Your task to perform on an android device: find snoozed emails in the gmail app Image 0: 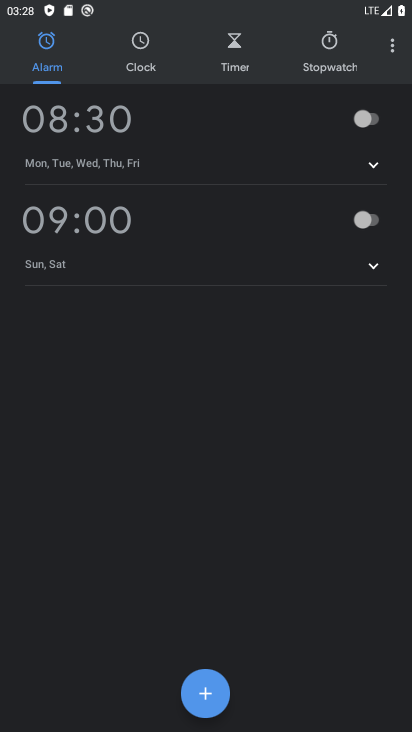
Step 0: press home button
Your task to perform on an android device: find snoozed emails in the gmail app Image 1: 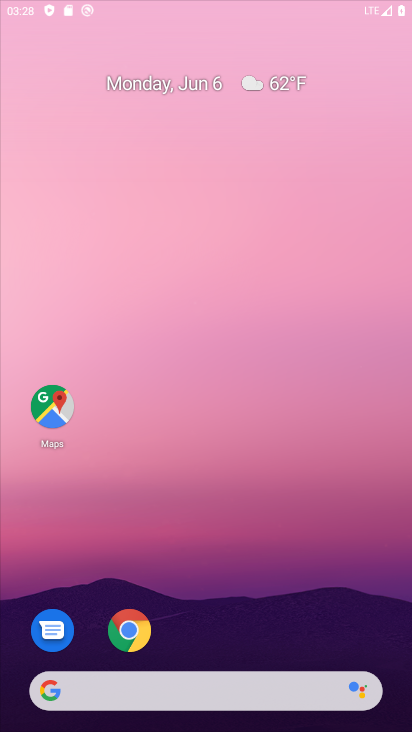
Step 1: drag from (294, 617) to (213, 6)
Your task to perform on an android device: find snoozed emails in the gmail app Image 2: 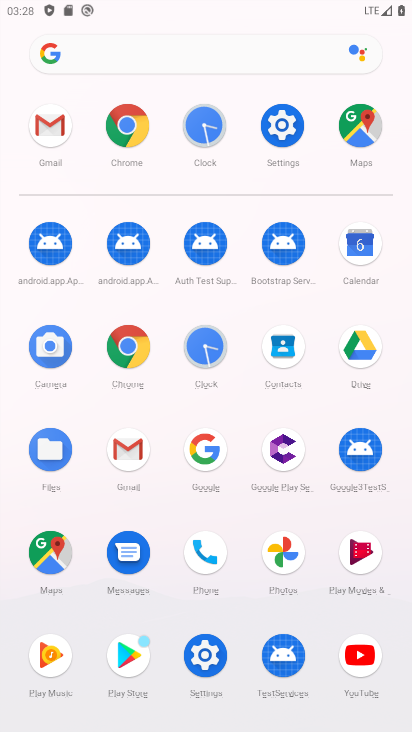
Step 2: click (42, 133)
Your task to perform on an android device: find snoozed emails in the gmail app Image 3: 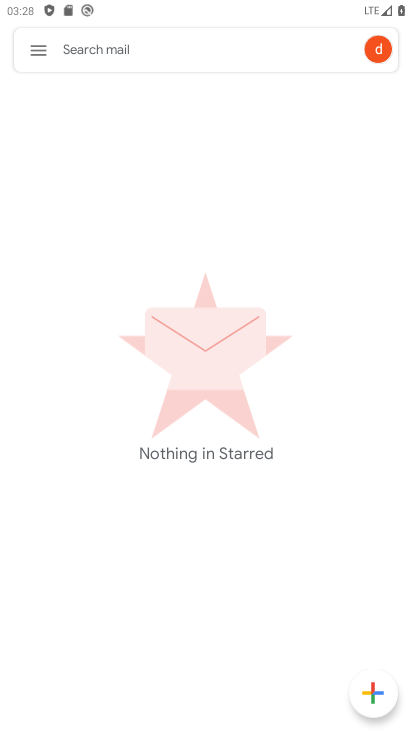
Step 3: click (45, 52)
Your task to perform on an android device: find snoozed emails in the gmail app Image 4: 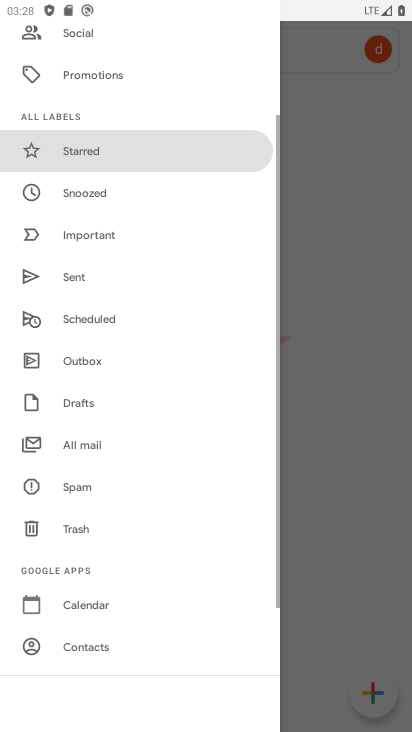
Step 4: click (100, 189)
Your task to perform on an android device: find snoozed emails in the gmail app Image 5: 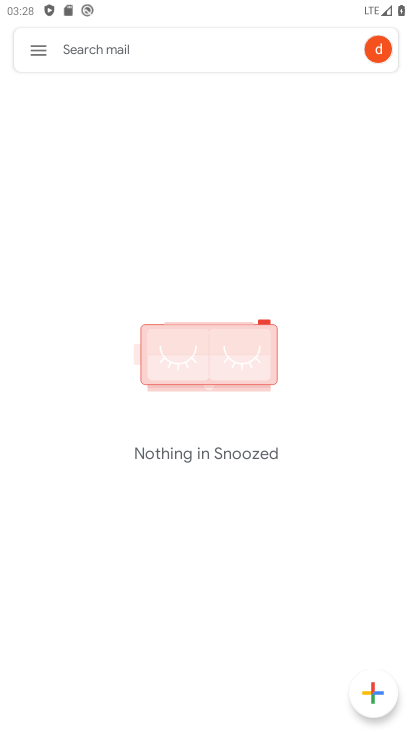
Step 5: task complete